Your task to perform on an android device: Go to display settings Image 0: 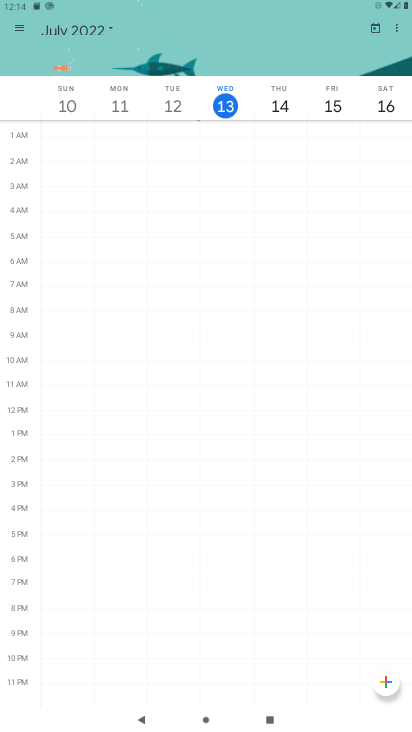
Step 0: press home button
Your task to perform on an android device: Go to display settings Image 1: 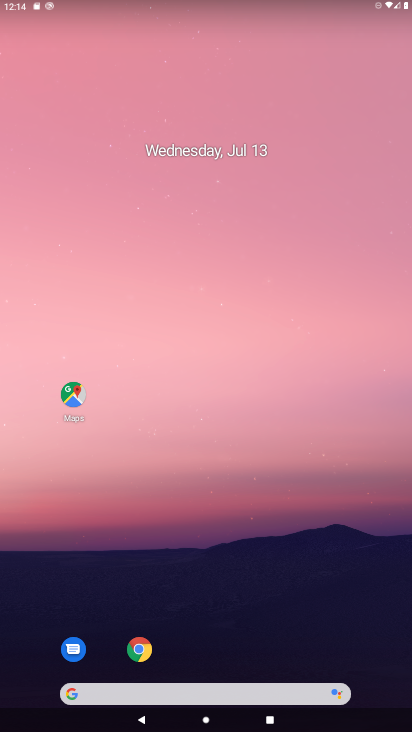
Step 1: drag from (268, 613) to (212, 100)
Your task to perform on an android device: Go to display settings Image 2: 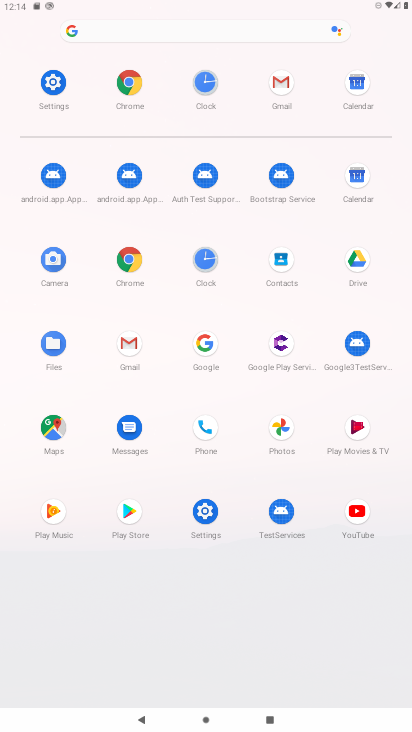
Step 2: click (203, 511)
Your task to perform on an android device: Go to display settings Image 3: 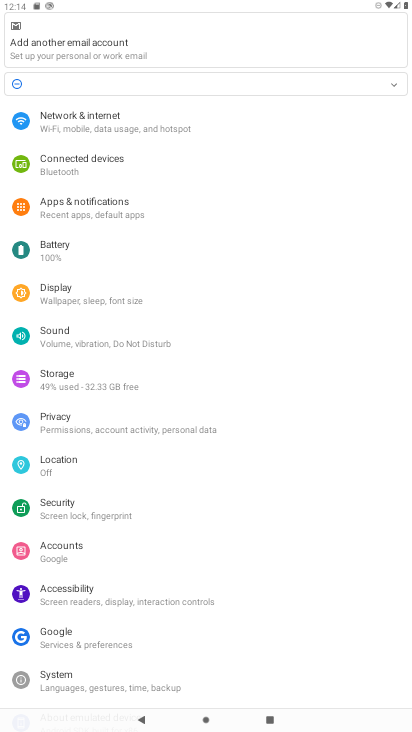
Step 3: click (59, 303)
Your task to perform on an android device: Go to display settings Image 4: 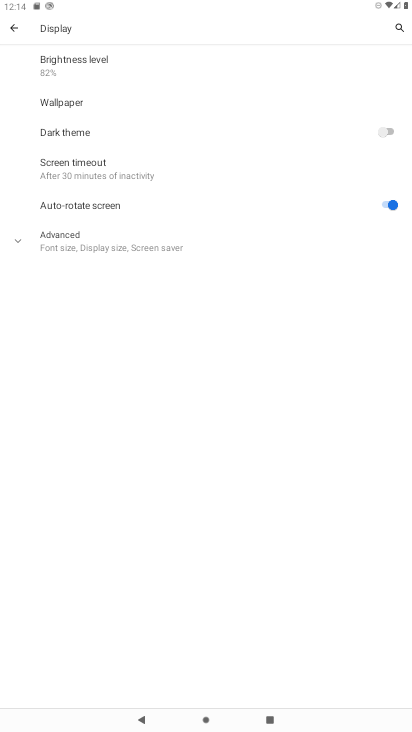
Step 4: click (18, 235)
Your task to perform on an android device: Go to display settings Image 5: 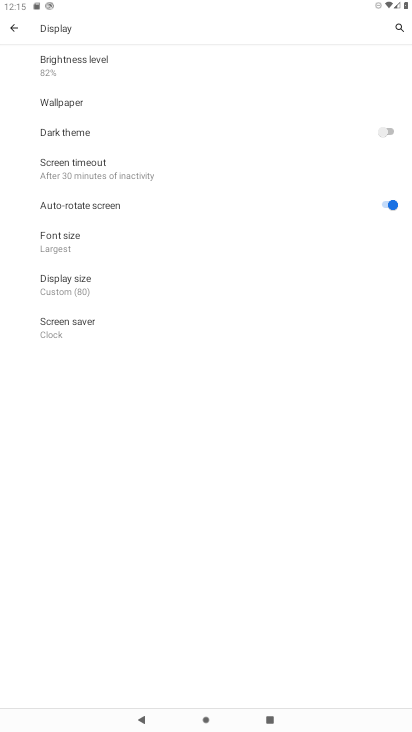
Step 5: task complete